Your task to perform on an android device: delete browsing data in the chrome app Image 0: 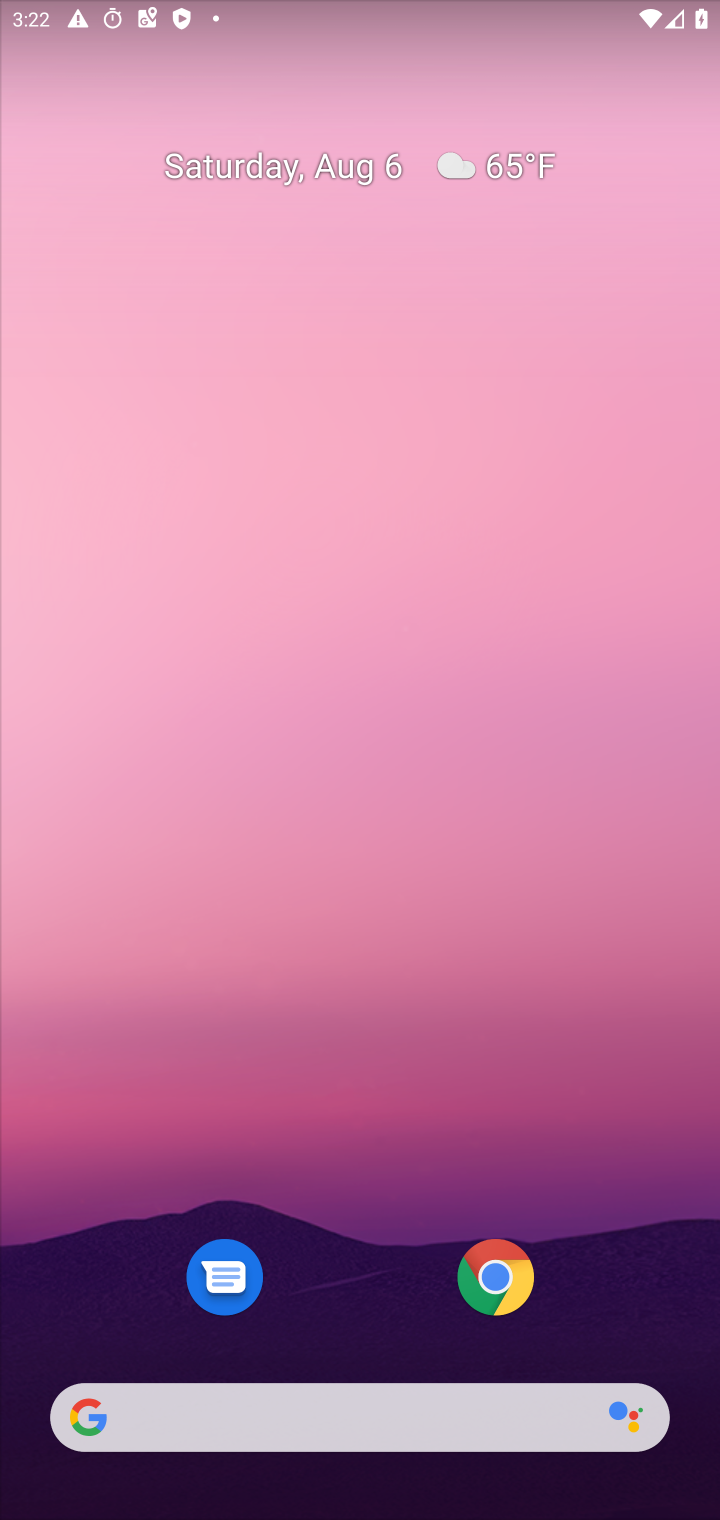
Step 0: drag from (316, 1404) to (597, 53)
Your task to perform on an android device: delete browsing data in the chrome app Image 1: 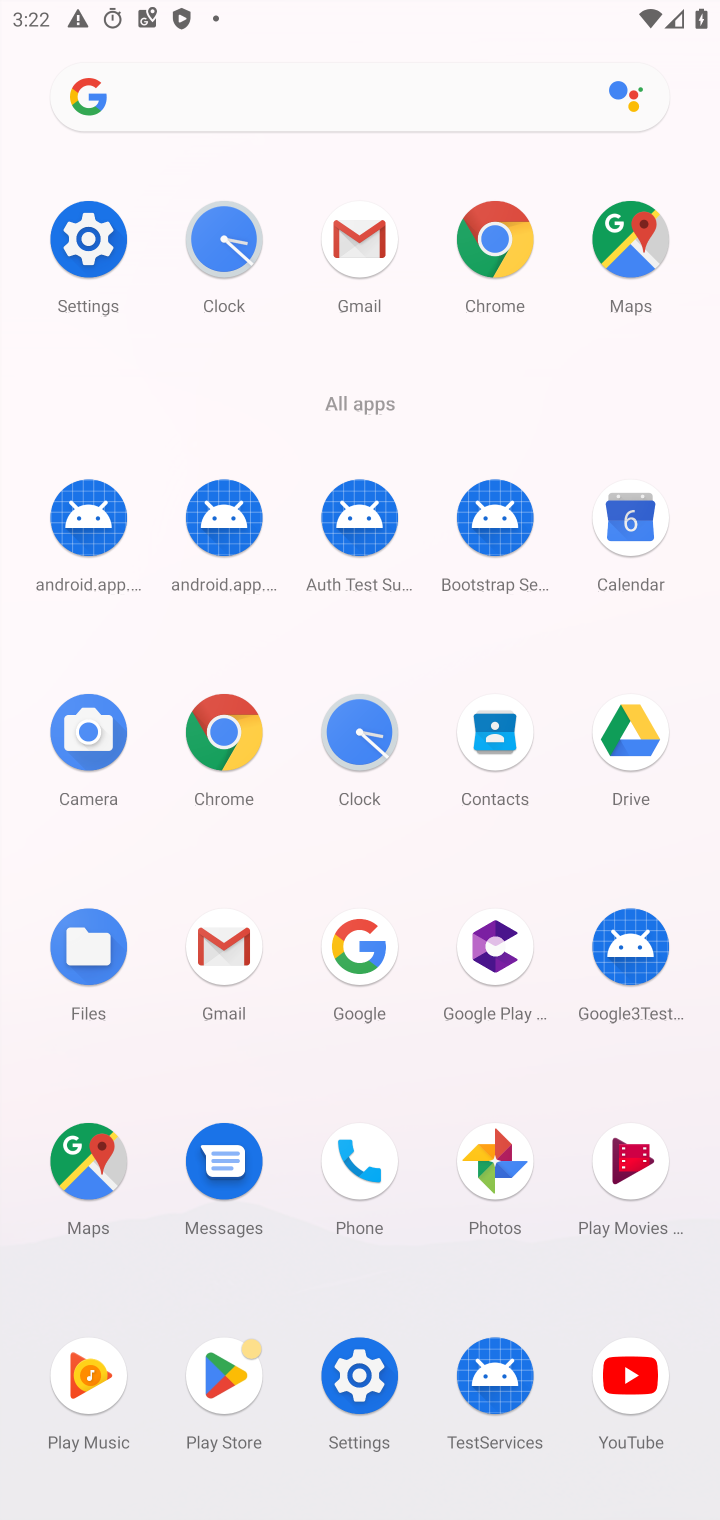
Step 1: click (226, 722)
Your task to perform on an android device: delete browsing data in the chrome app Image 2: 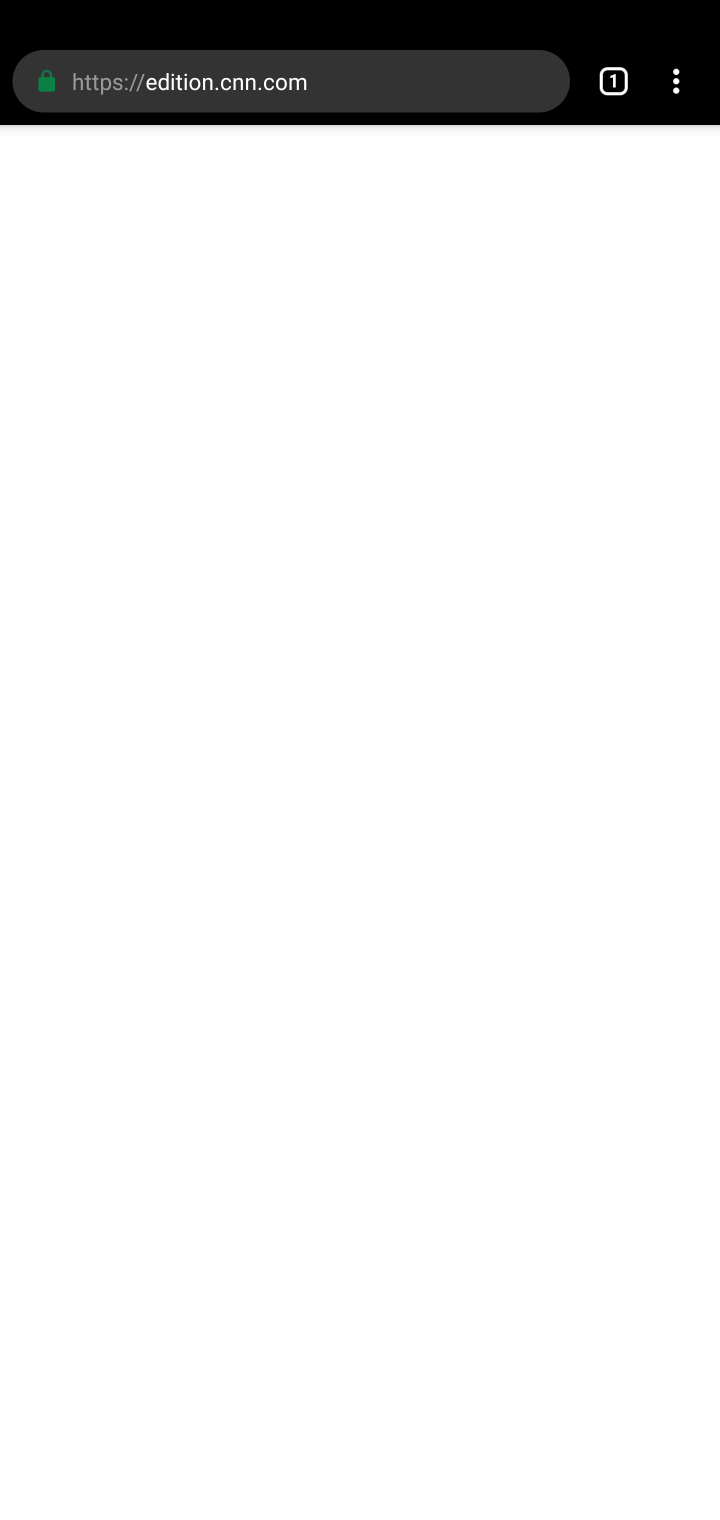
Step 2: click (675, 80)
Your task to perform on an android device: delete browsing data in the chrome app Image 3: 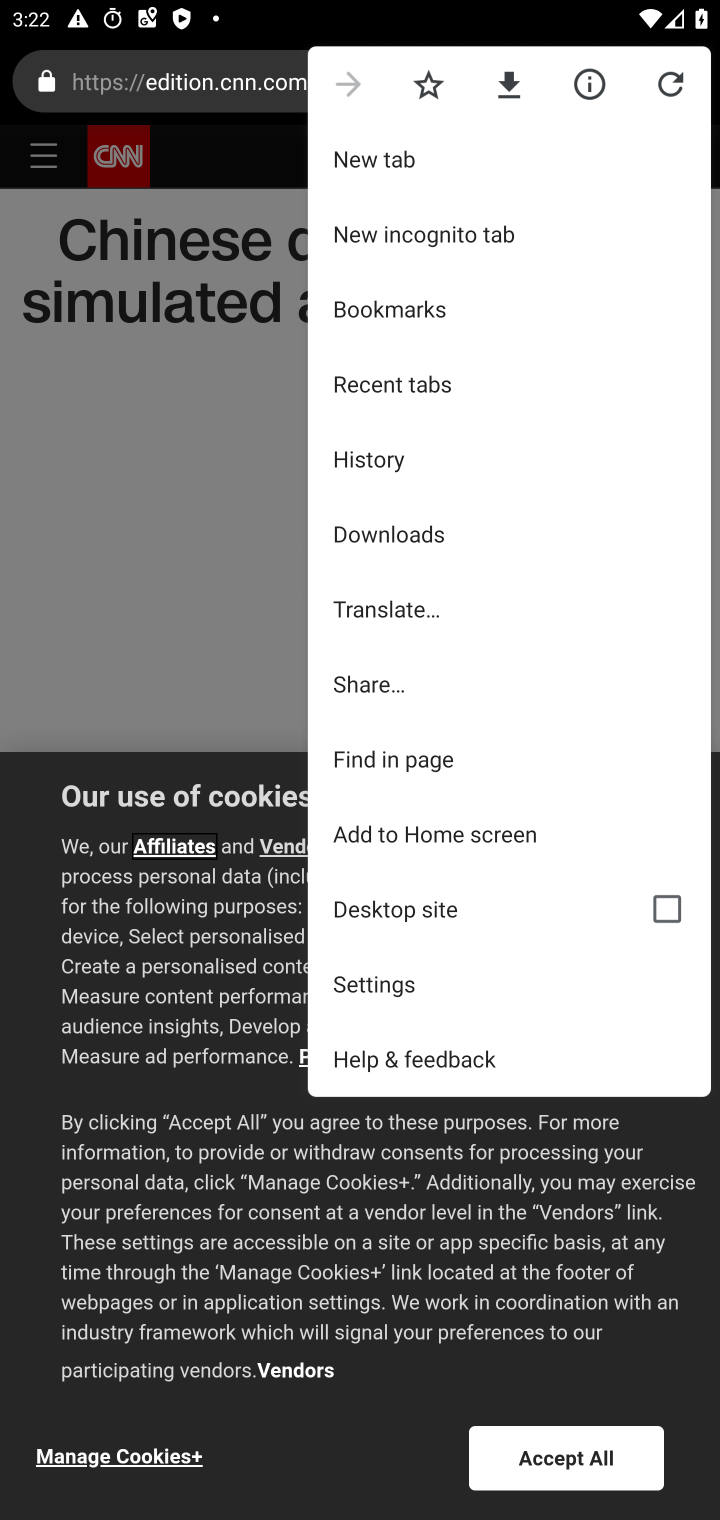
Step 3: click (425, 983)
Your task to perform on an android device: delete browsing data in the chrome app Image 4: 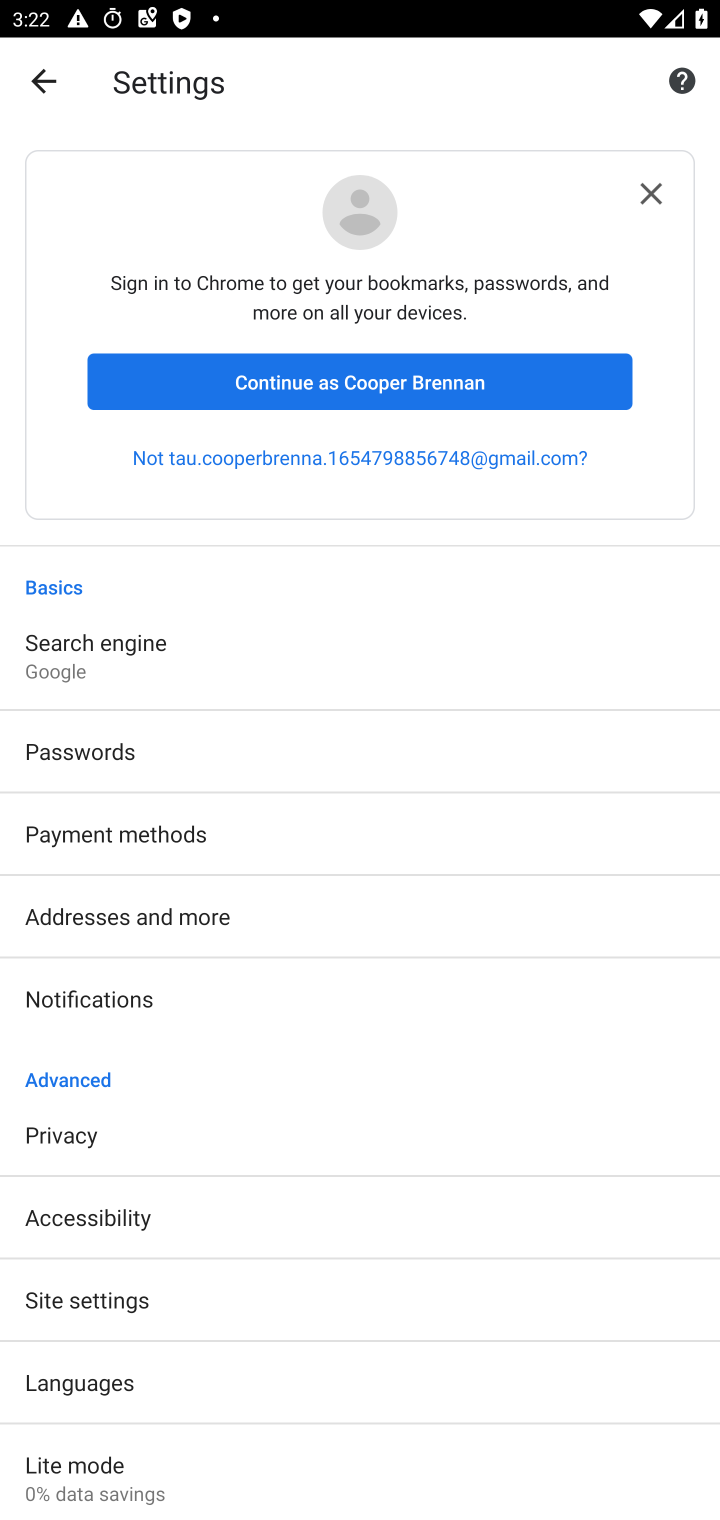
Step 4: click (123, 1143)
Your task to perform on an android device: delete browsing data in the chrome app Image 5: 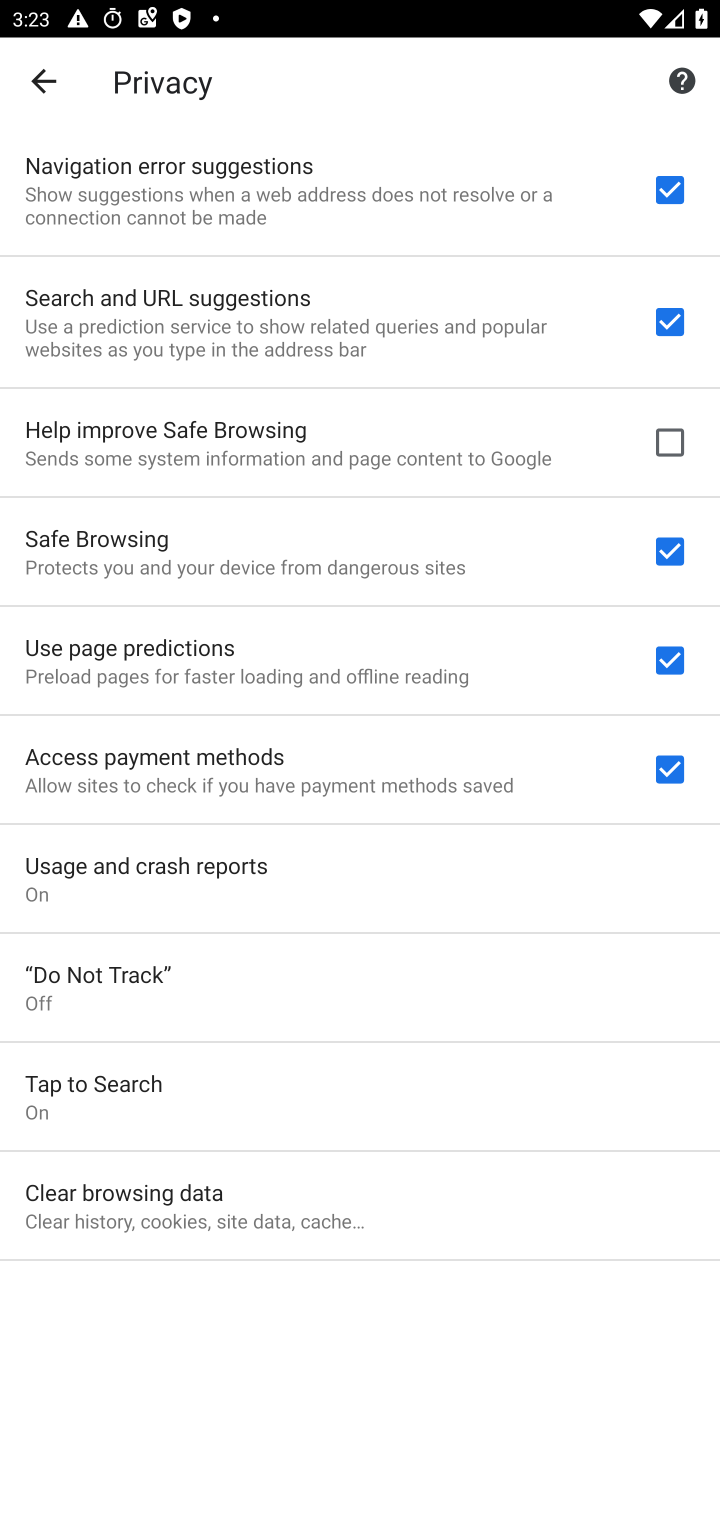
Step 5: click (468, 1180)
Your task to perform on an android device: delete browsing data in the chrome app Image 6: 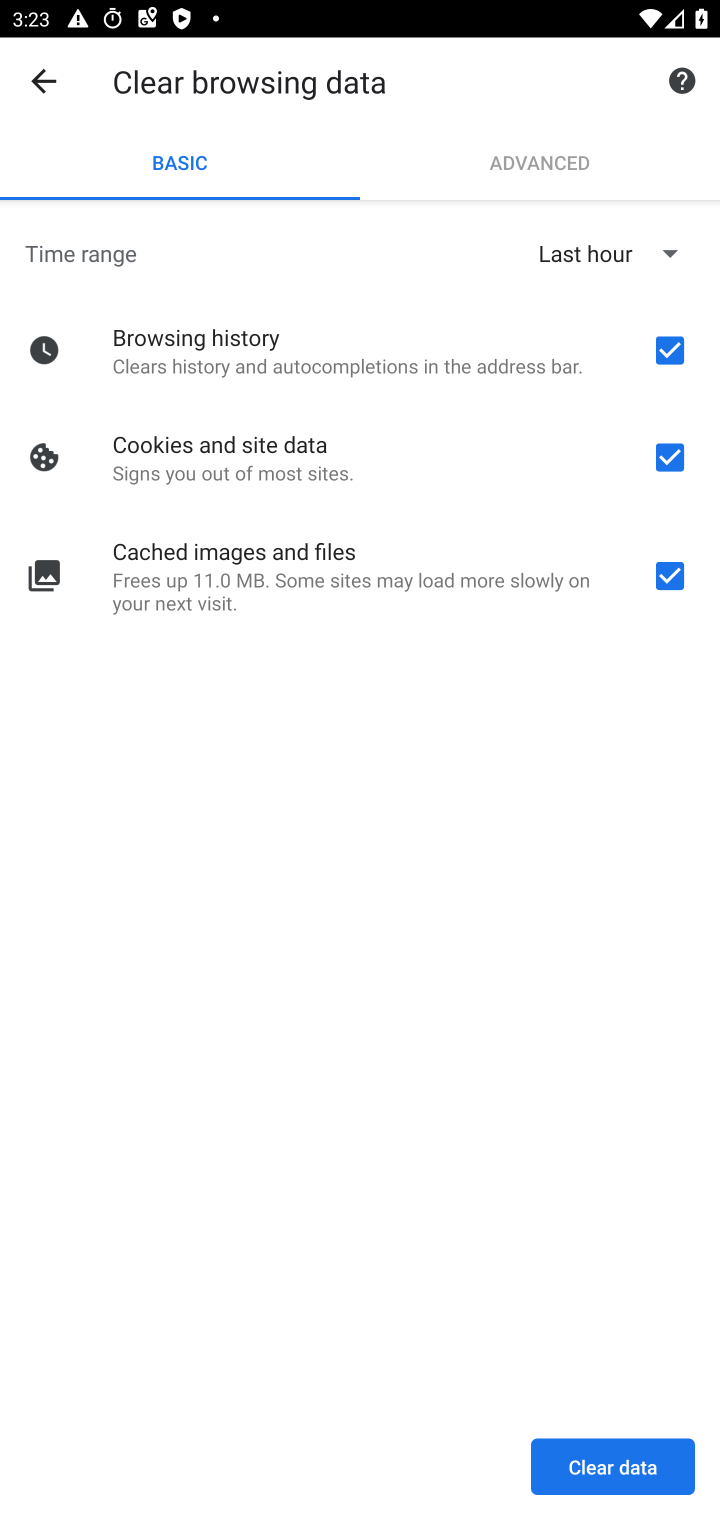
Step 6: click (619, 1473)
Your task to perform on an android device: delete browsing data in the chrome app Image 7: 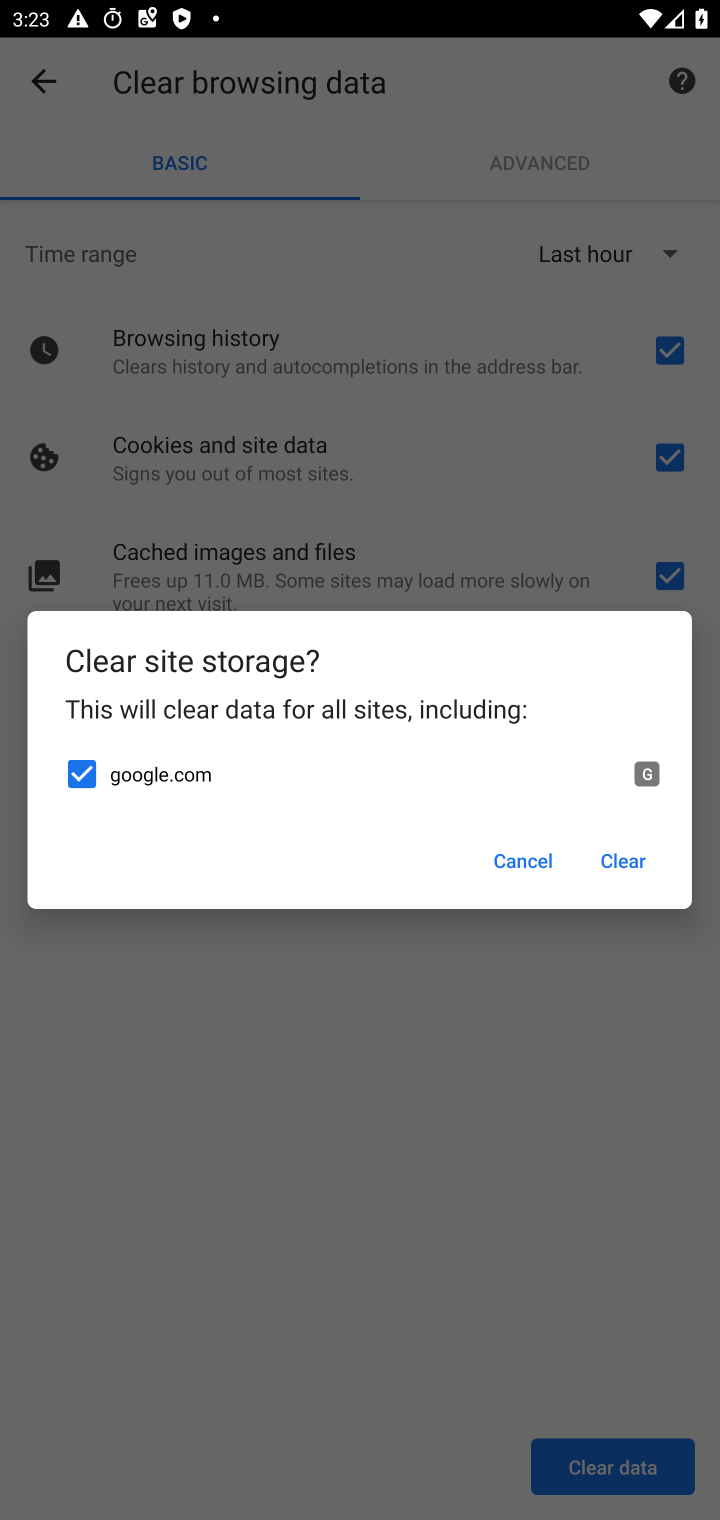
Step 7: click (617, 849)
Your task to perform on an android device: delete browsing data in the chrome app Image 8: 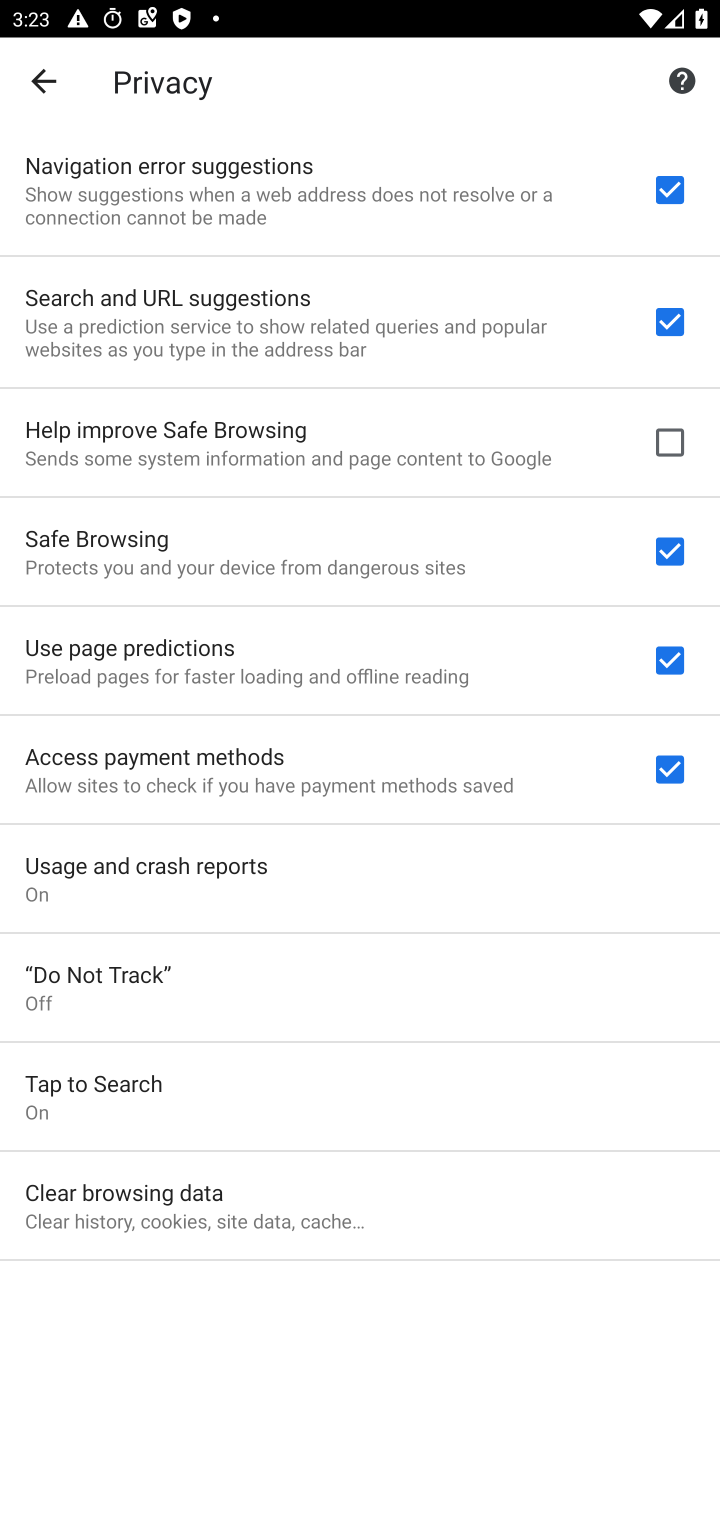
Step 8: click (187, 1186)
Your task to perform on an android device: delete browsing data in the chrome app Image 9: 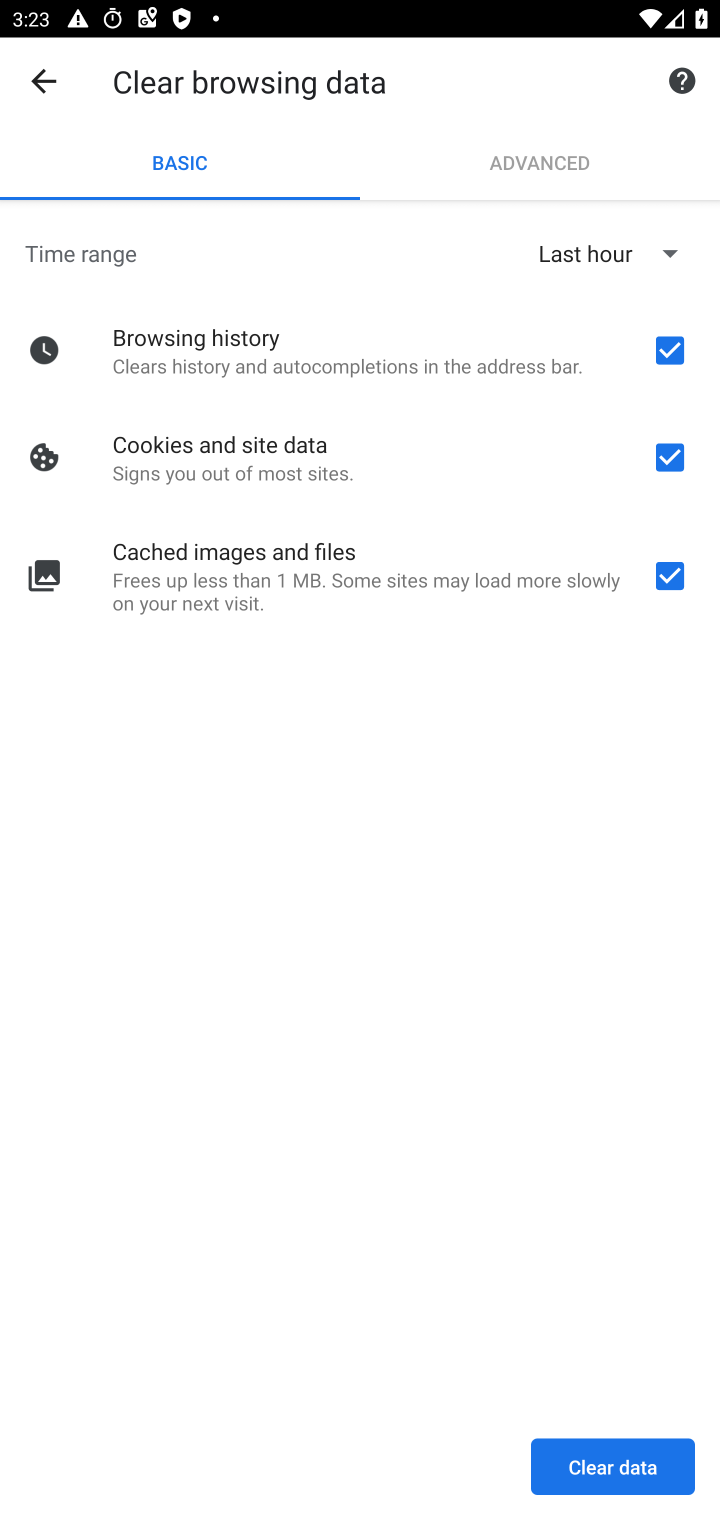
Step 9: click (646, 1454)
Your task to perform on an android device: delete browsing data in the chrome app Image 10: 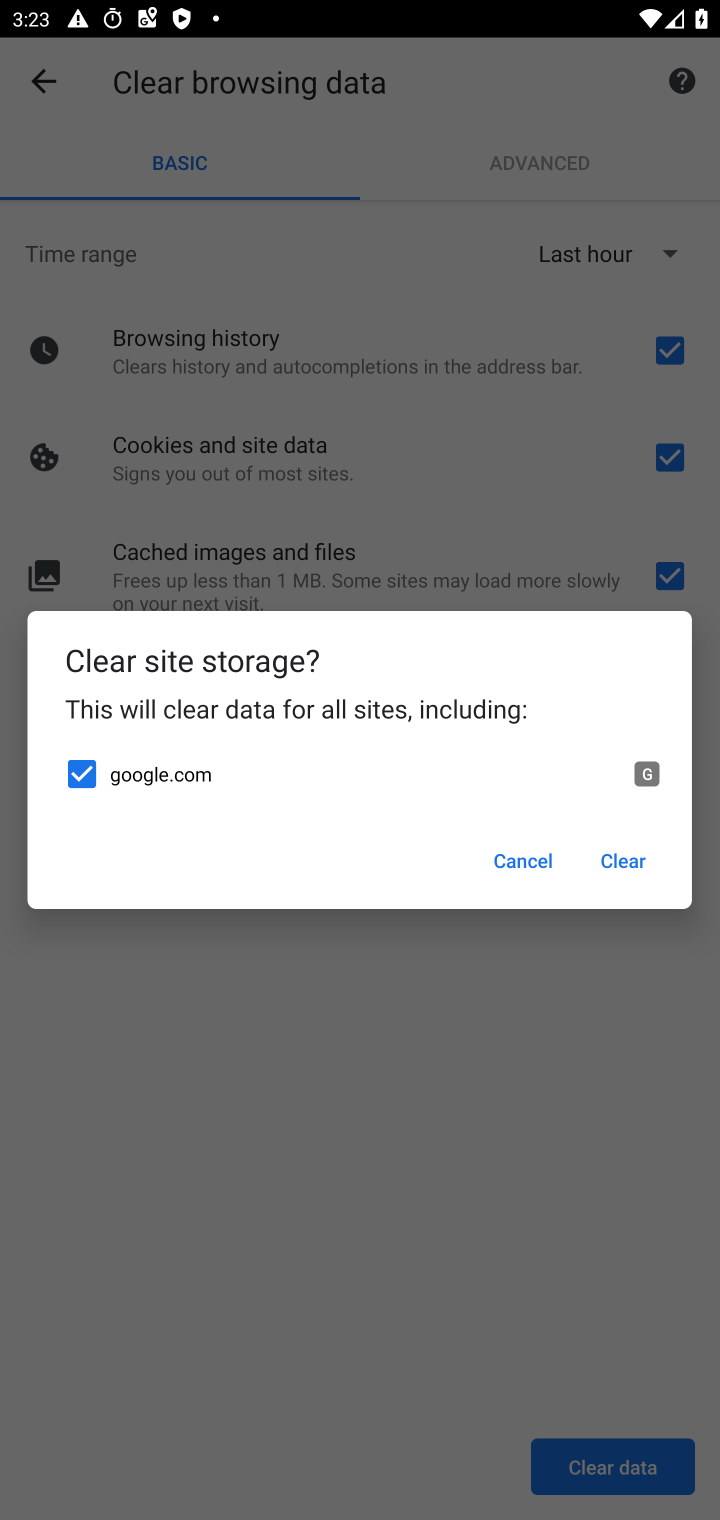
Step 10: click (620, 848)
Your task to perform on an android device: delete browsing data in the chrome app Image 11: 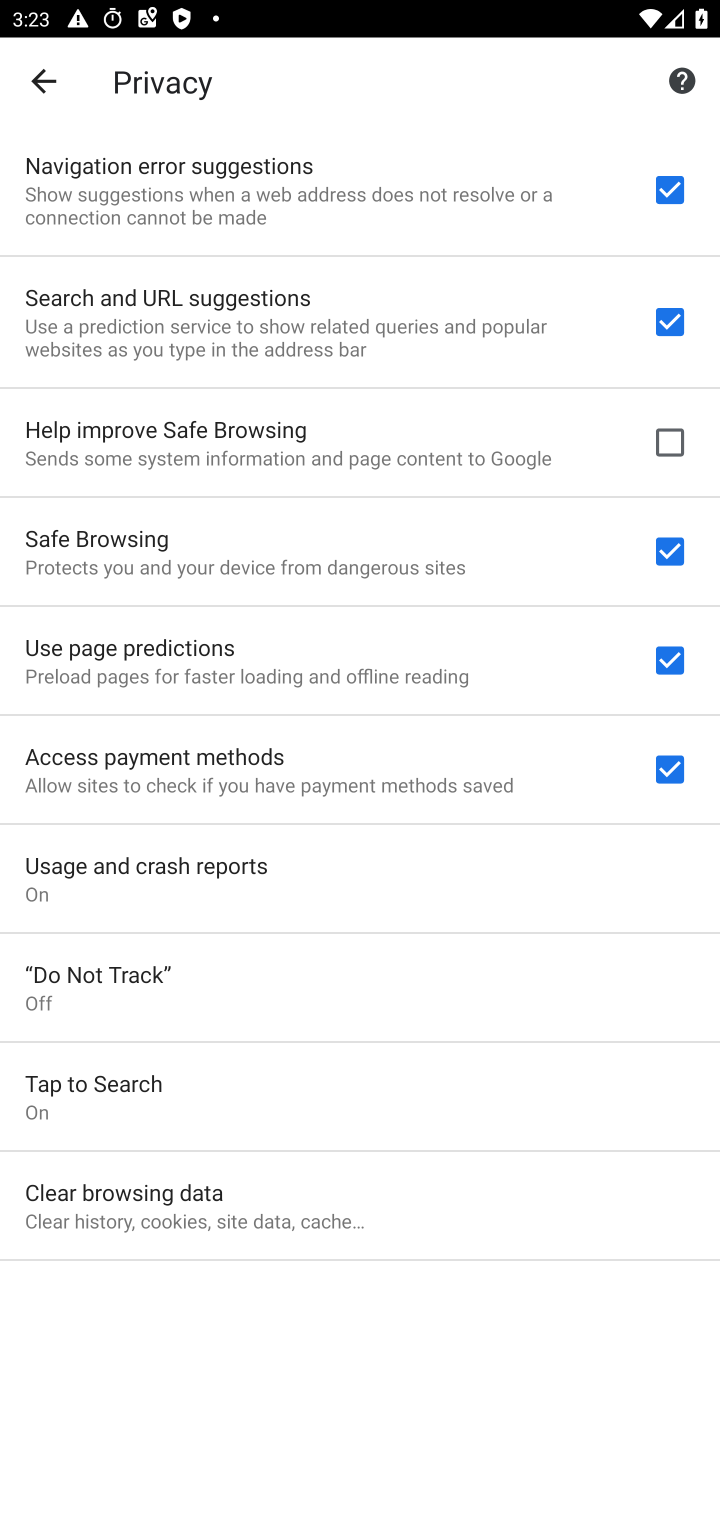
Step 11: task complete